Your task to perform on an android device: Open Google Chrome and click the shortcut for Amazon.com Image 0: 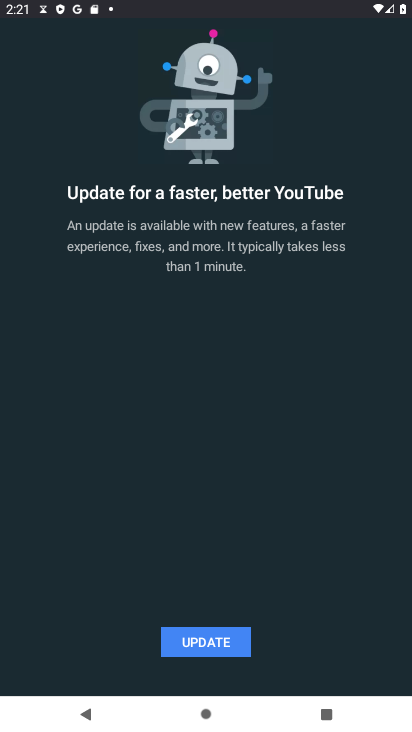
Step 0: press home button
Your task to perform on an android device: Open Google Chrome and click the shortcut for Amazon.com Image 1: 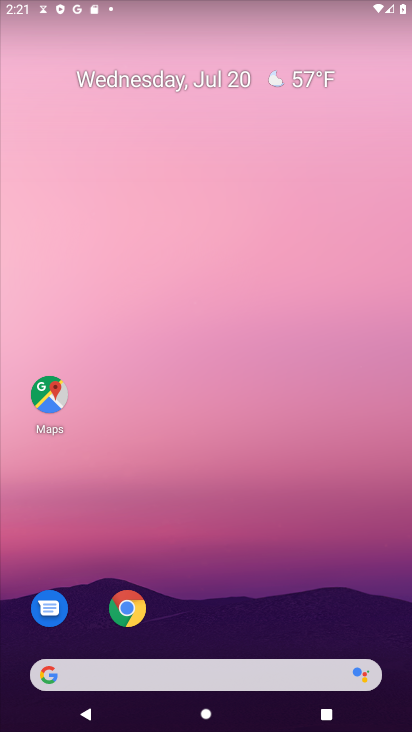
Step 1: click (124, 607)
Your task to perform on an android device: Open Google Chrome and click the shortcut for Amazon.com Image 2: 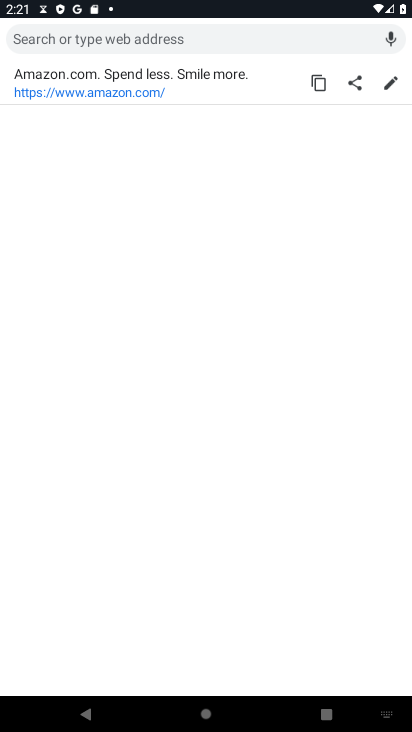
Step 2: drag from (175, 68) to (90, 75)
Your task to perform on an android device: Open Google Chrome and click the shortcut for Amazon.com Image 3: 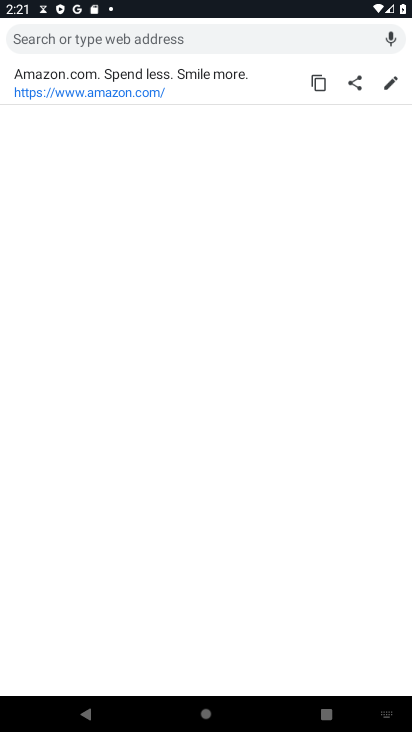
Step 3: press back button
Your task to perform on an android device: Open Google Chrome and click the shortcut for Amazon.com Image 4: 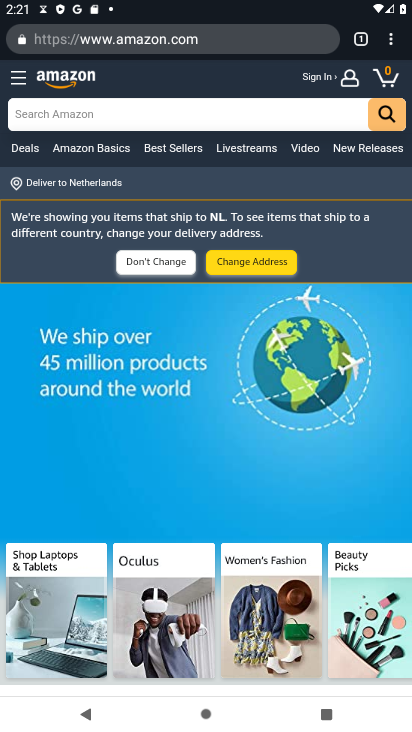
Step 4: click (362, 35)
Your task to perform on an android device: Open Google Chrome and click the shortcut for Amazon.com Image 5: 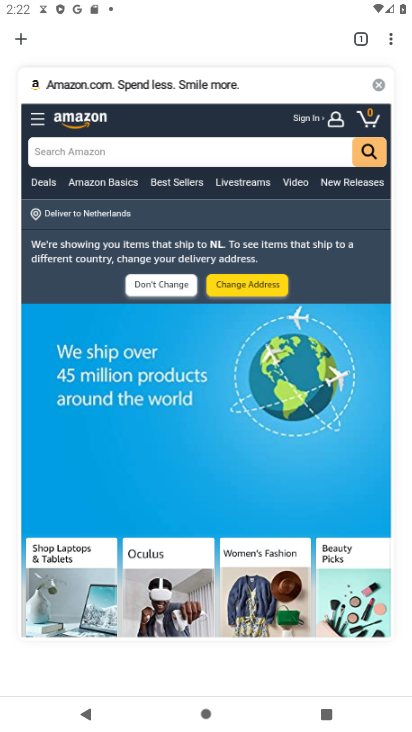
Step 5: click (378, 85)
Your task to perform on an android device: Open Google Chrome and click the shortcut for Amazon.com Image 6: 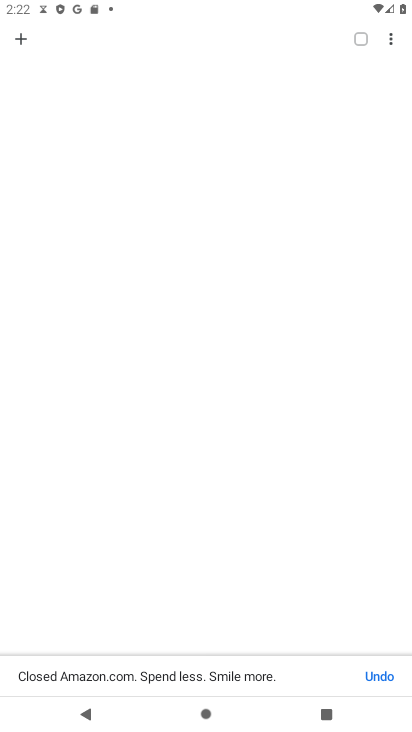
Step 6: click (22, 42)
Your task to perform on an android device: Open Google Chrome and click the shortcut for Amazon.com Image 7: 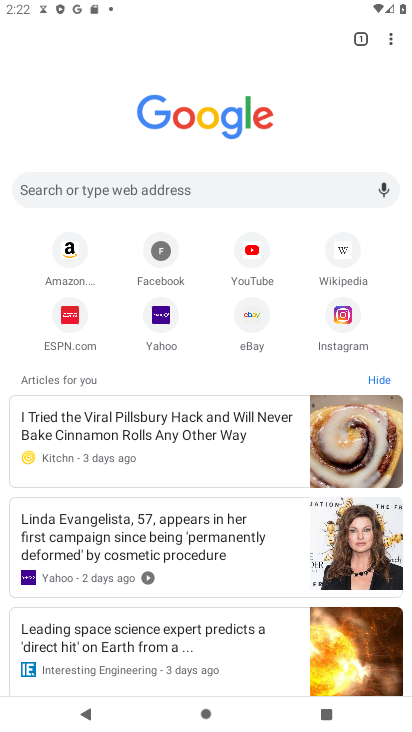
Step 7: click (67, 244)
Your task to perform on an android device: Open Google Chrome and click the shortcut for Amazon.com Image 8: 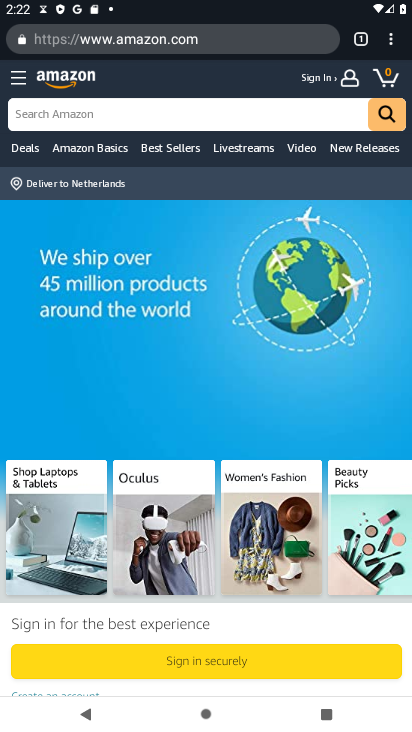
Step 8: task complete